Your task to perform on an android device: What is the news today? Image 0: 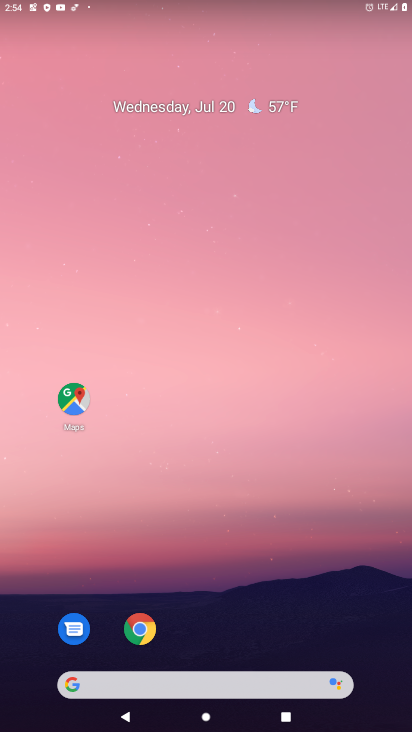
Step 0: drag from (3, 292) to (383, 330)
Your task to perform on an android device: What is the news today? Image 1: 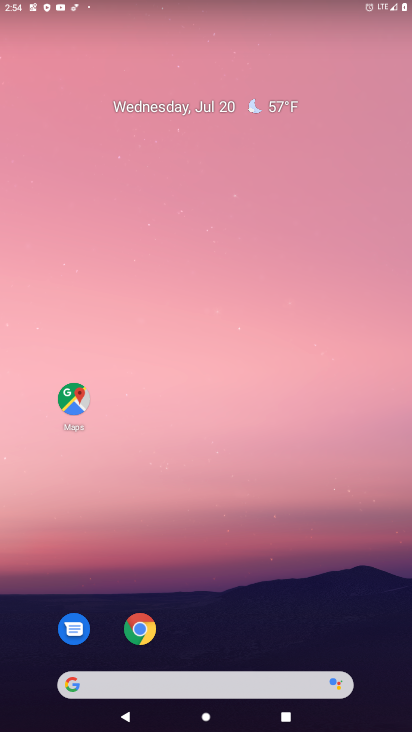
Step 1: task complete